Your task to perform on an android device: open app "Skype" Image 0: 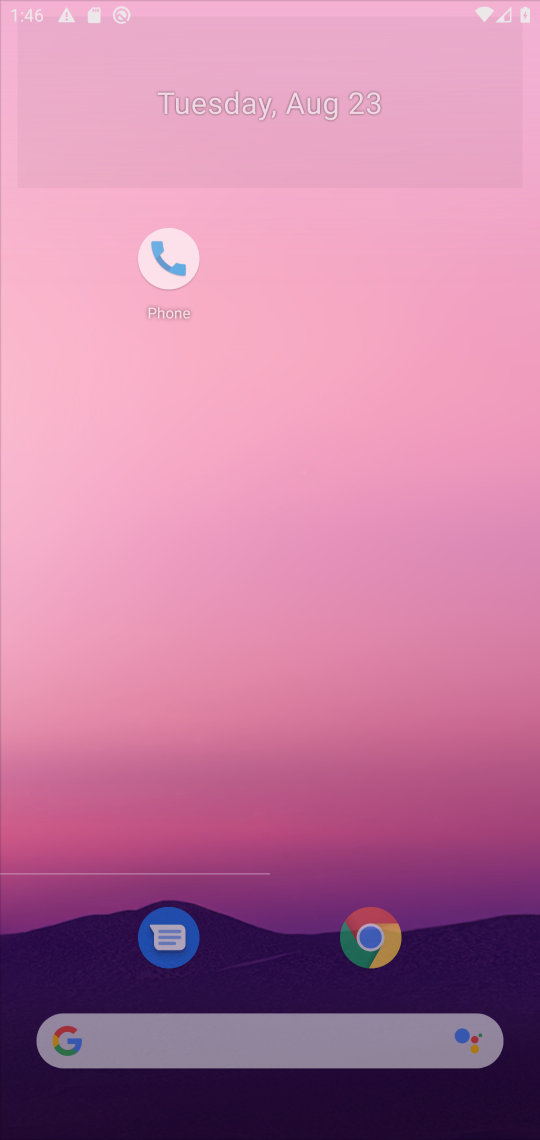
Step 0: press home button
Your task to perform on an android device: open app "Skype" Image 1: 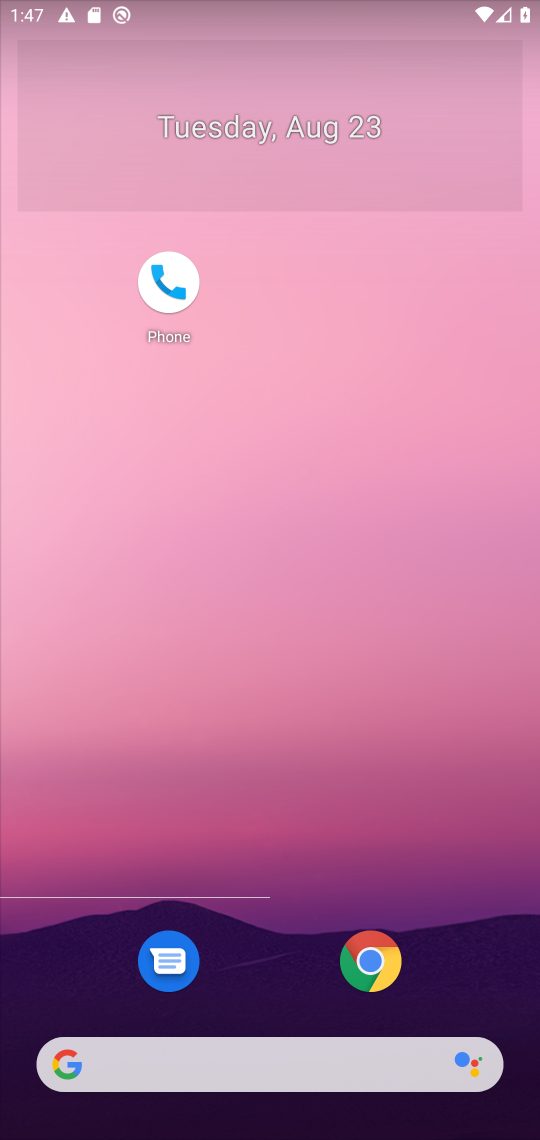
Step 1: drag from (301, 998) to (217, 151)
Your task to perform on an android device: open app "Skype" Image 2: 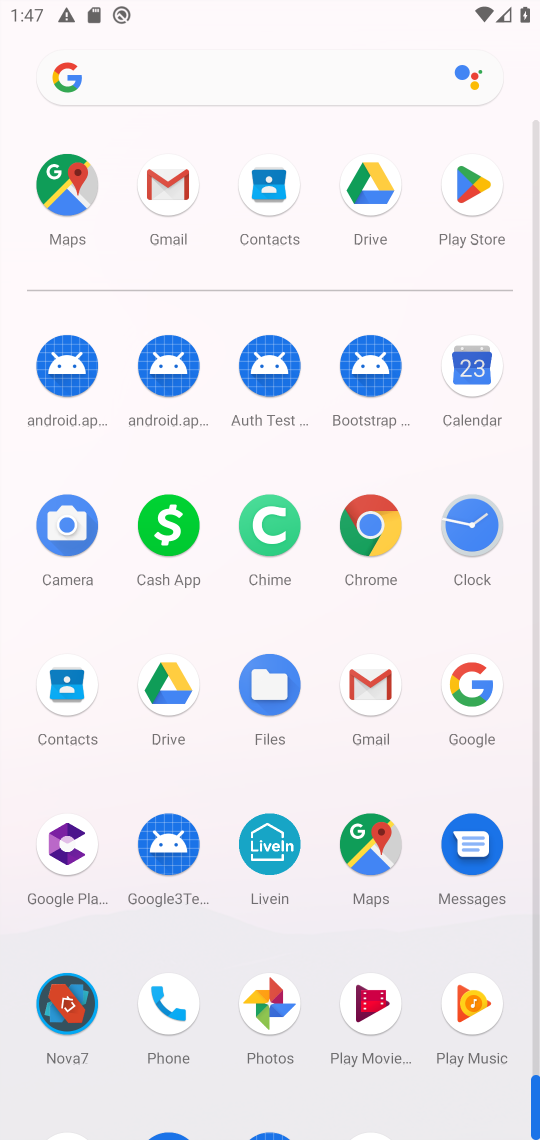
Step 2: click (476, 240)
Your task to perform on an android device: open app "Skype" Image 3: 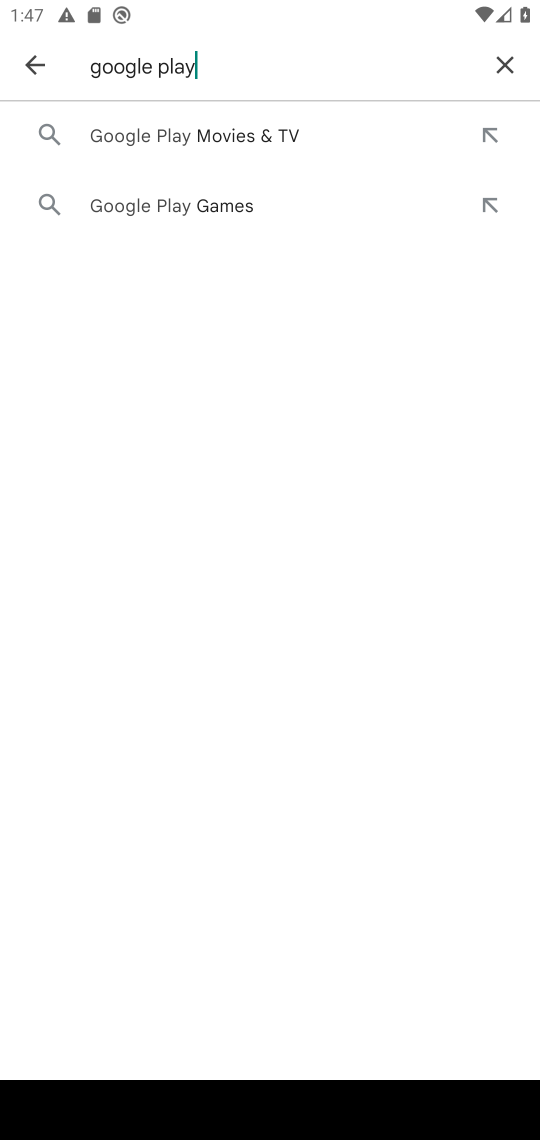
Step 3: click (488, 65)
Your task to perform on an android device: open app "Skype" Image 4: 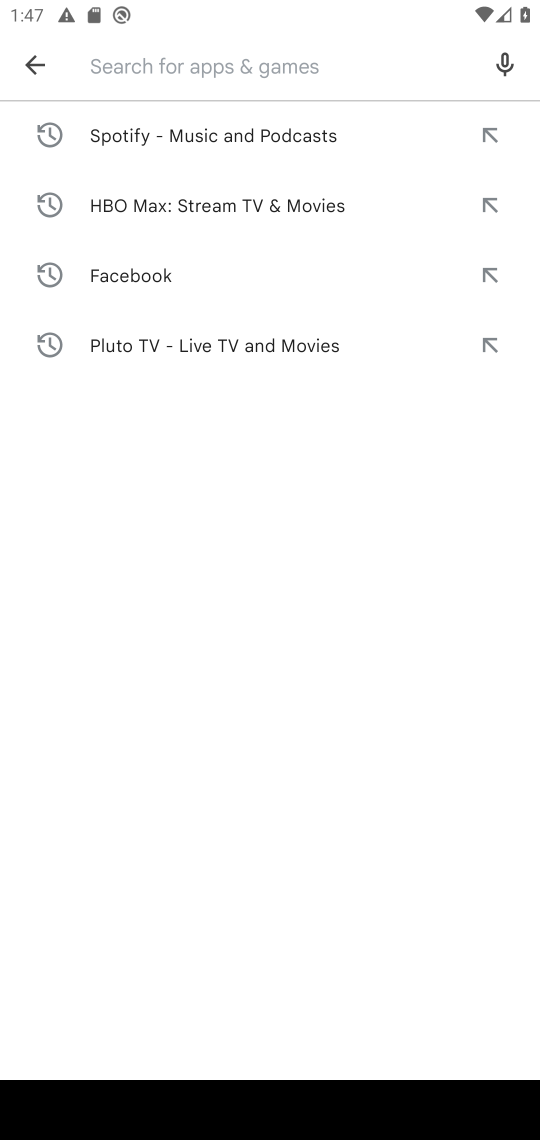
Step 4: type "skype"
Your task to perform on an android device: open app "Skype" Image 5: 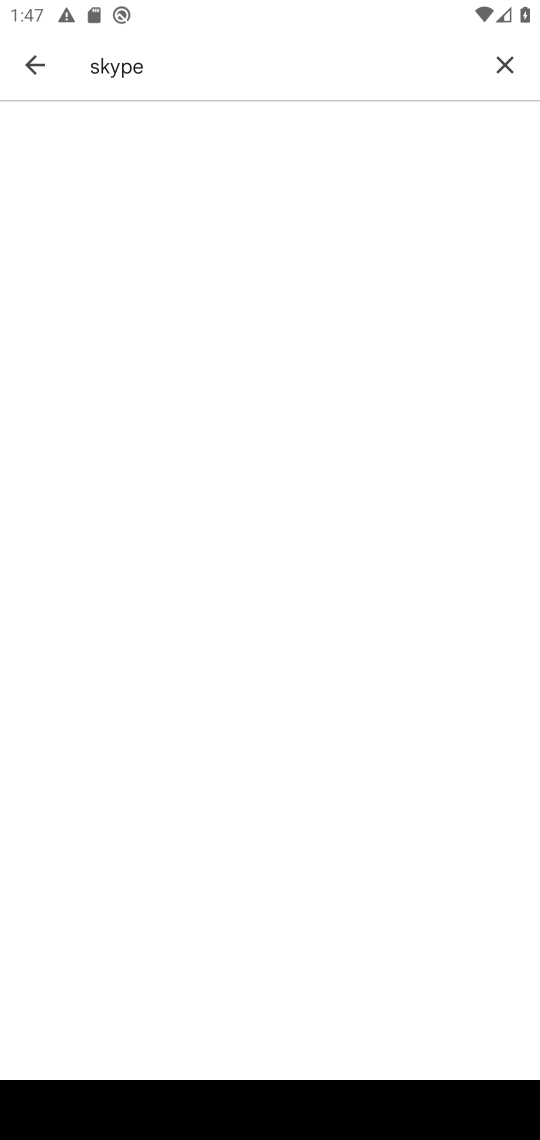
Step 5: task complete